Your task to perform on an android device: check battery use Image 0: 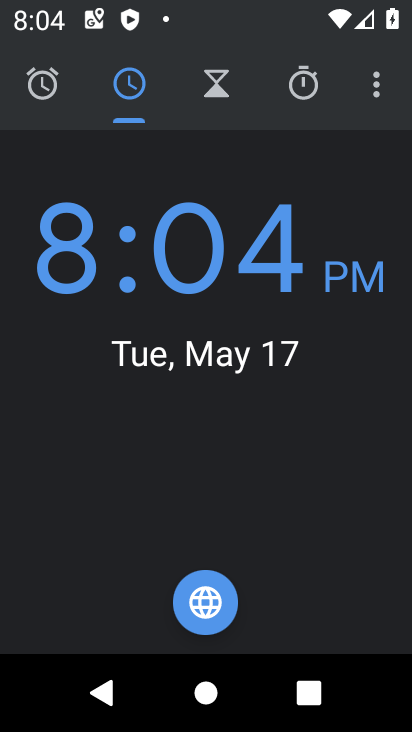
Step 0: press home button
Your task to perform on an android device: check battery use Image 1: 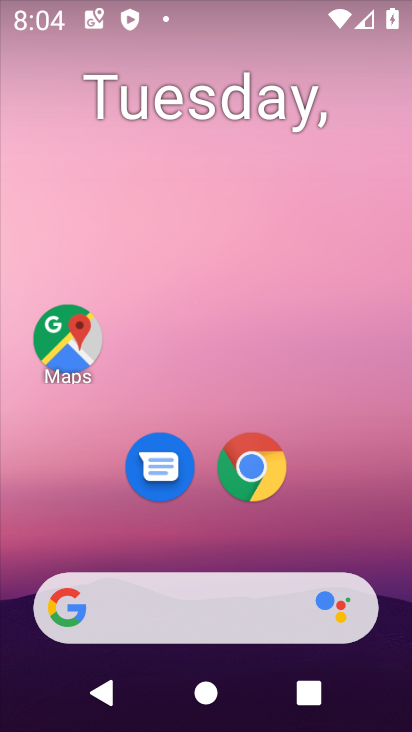
Step 1: drag from (387, 575) to (266, 131)
Your task to perform on an android device: check battery use Image 2: 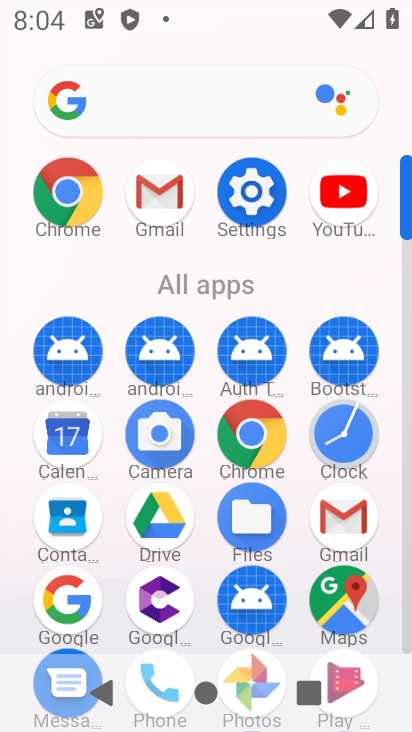
Step 2: click (256, 190)
Your task to perform on an android device: check battery use Image 3: 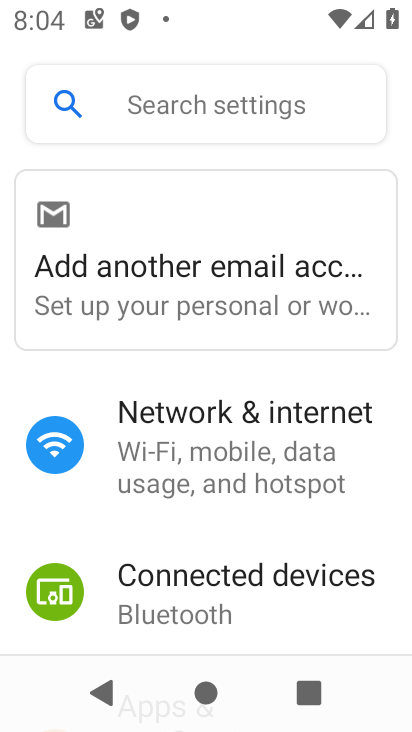
Step 3: drag from (313, 622) to (271, 137)
Your task to perform on an android device: check battery use Image 4: 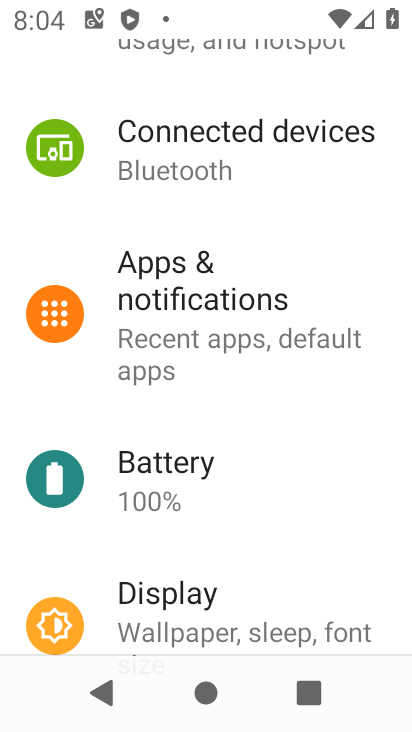
Step 4: click (259, 487)
Your task to perform on an android device: check battery use Image 5: 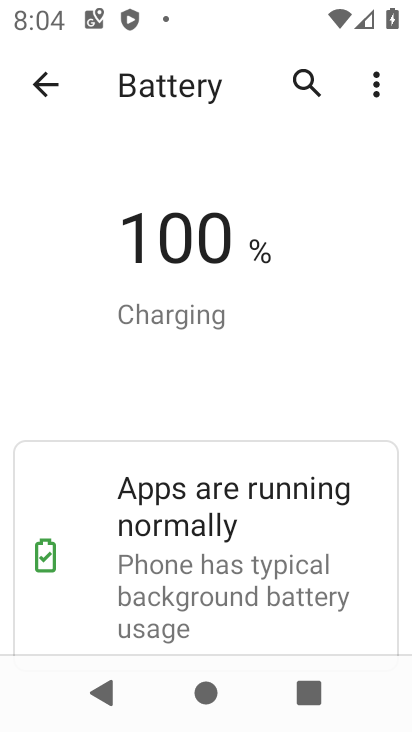
Step 5: task complete